Your task to perform on an android device: Open display settings Image 0: 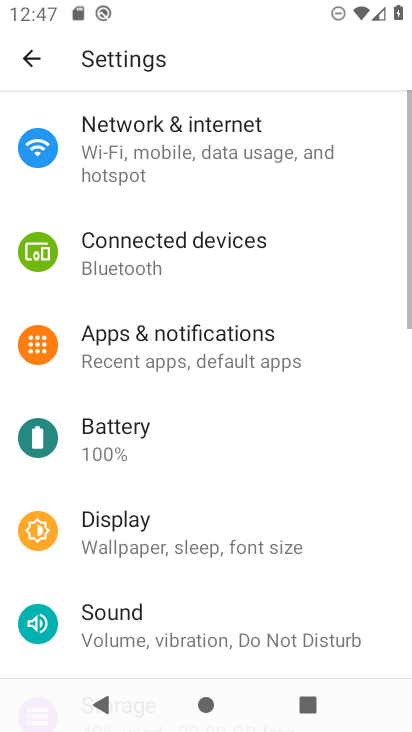
Step 0: press home button
Your task to perform on an android device: Open display settings Image 1: 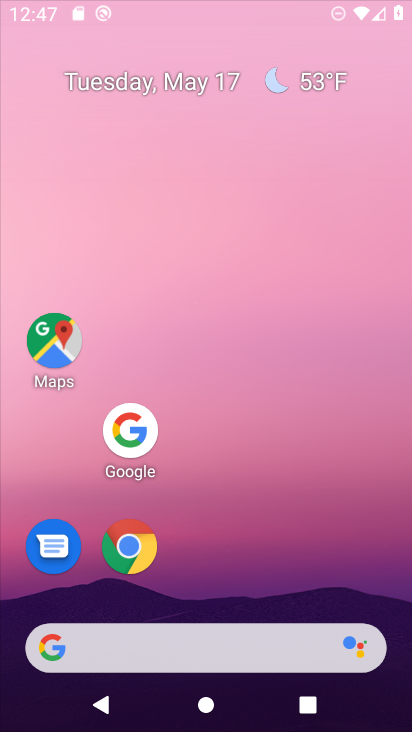
Step 1: drag from (232, 569) to (223, 38)
Your task to perform on an android device: Open display settings Image 2: 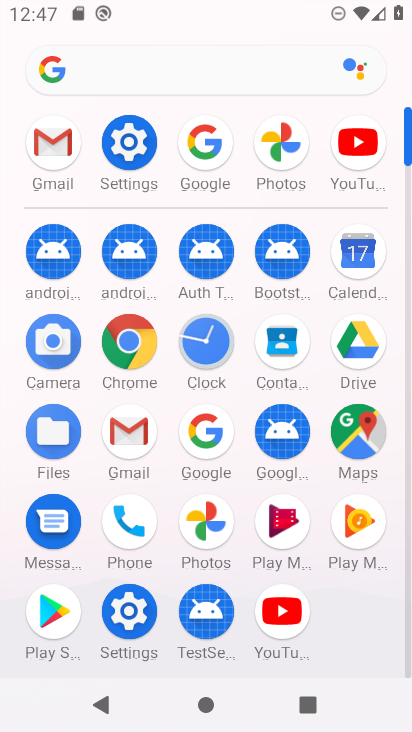
Step 2: click (127, 140)
Your task to perform on an android device: Open display settings Image 3: 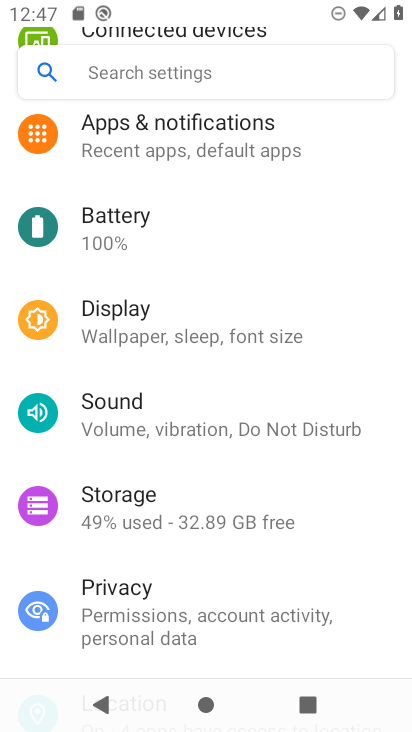
Step 3: click (145, 320)
Your task to perform on an android device: Open display settings Image 4: 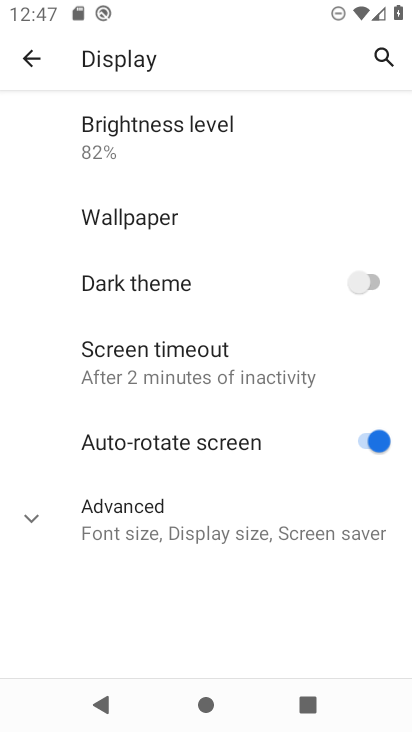
Step 4: task complete